Your task to perform on an android device: open app "Firefox Browser" Image 0: 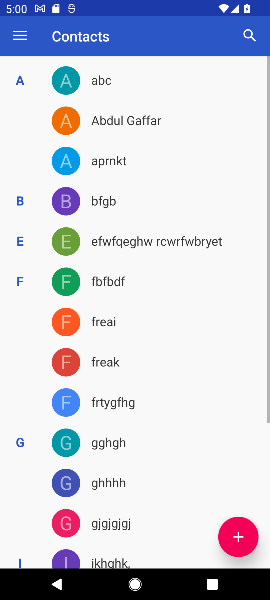
Step 0: press home button
Your task to perform on an android device: open app "Firefox Browser" Image 1: 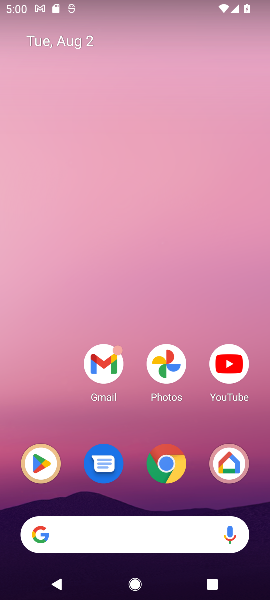
Step 1: click (37, 460)
Your task to perform on an android device: open app "Firefox Browser" Image 2: 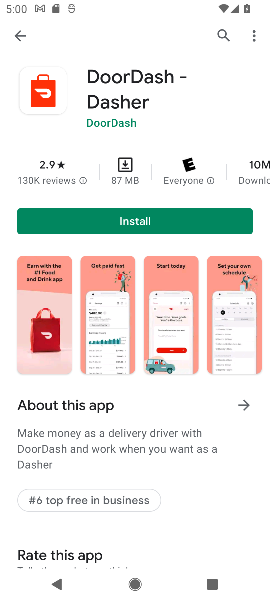
Step 2: click (217, 35)
Your task to perform on an android device: open app "Firefox Browser" Image 3: 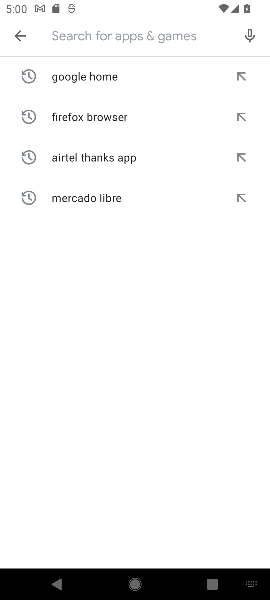
Step 3: type "Firefox Browser"
Your task to perform on an android device: open app "Firefox Browser" Image 4: 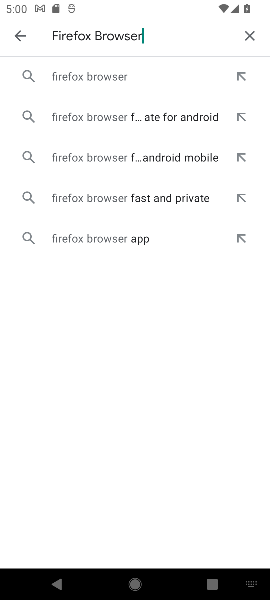
Step 4: click (105, 77)
Your task to perform on an android device: open app "Firefox Browser" Image 5: 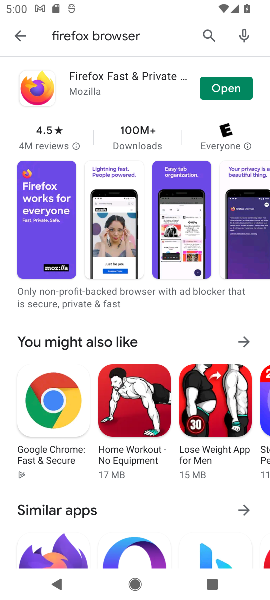
Step 5: click (242, 81)
Your task to perform on an android device: open app "Firefox Browser" Image 6: 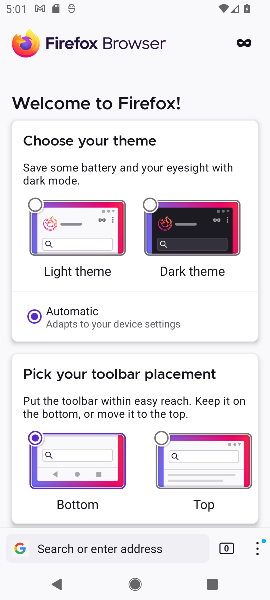
Step 6: task complete